Your task to perform on an android device: turn on translation in the chrome app Image 0: 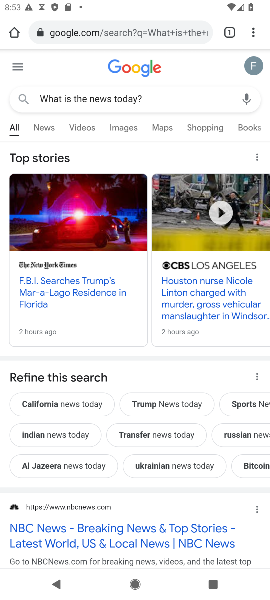
Step 0: click (252, 37)
Your task to perform on an android device: turn on translation in the chrome app Image 1: 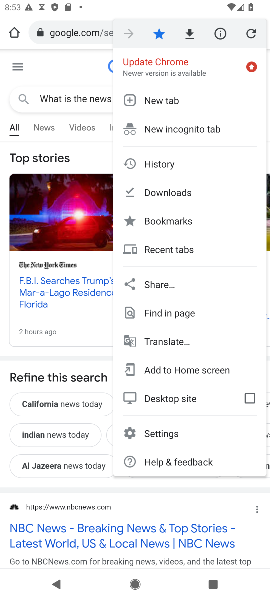
Step 1: click (171, 432)
Your task to perform on an android device: turn on translation in the chrome app Image 2: 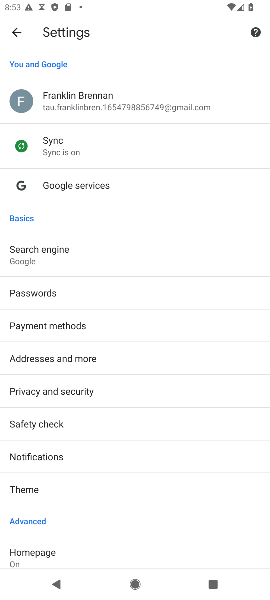
Step 2: drag from (90, 543) to (98, 125)
Your task to perform on an android device: turn on translation in the chrome app Image 3: 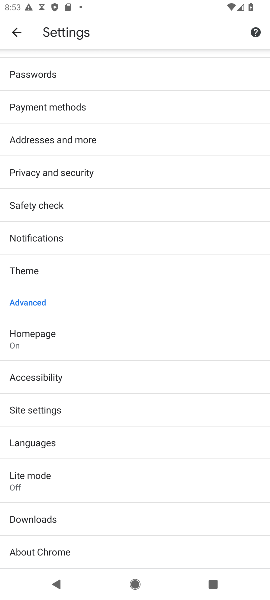
Step 3: click (50, 440)
Your task to perform on an android device: turn on translation in the chrome app Image 4: 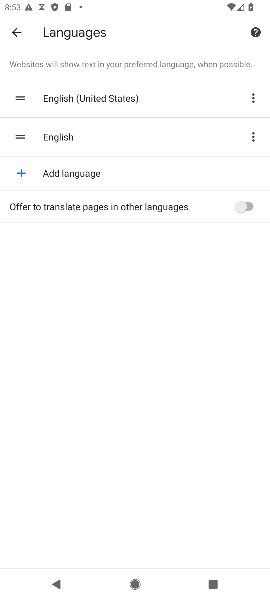
Step 4: click (261, 213)
Your task to perform on an android device: turn on translation in the chrome app Image 5: 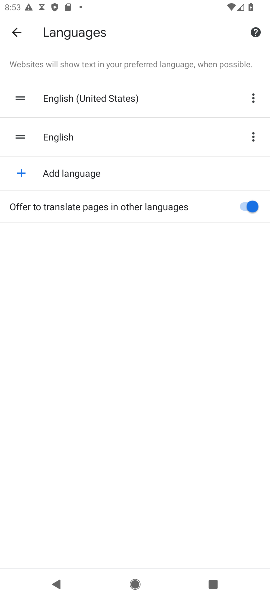
Step 5: task complete